Your task to perform on an android device: Open privacy settings Image 0: 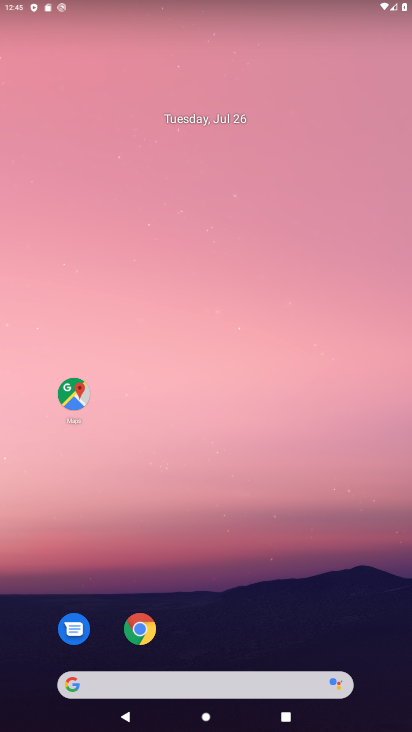
Step 0: drag from (374, 714) to (278, 211)
Your task to perform on an android device: Open privacy settings Image 1: 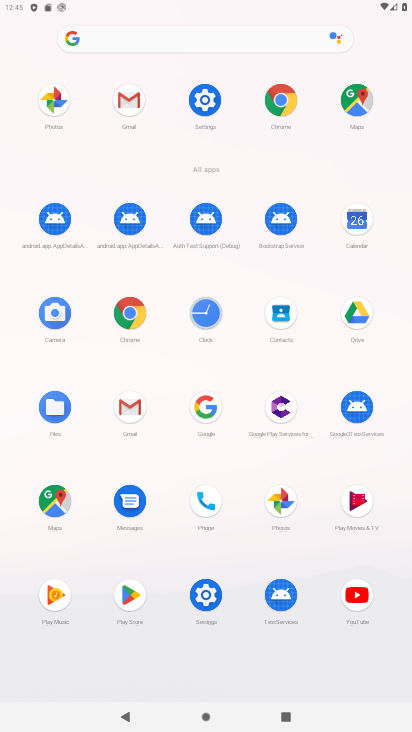
Step 1: click (208, 588)
Your task to perform on an android device: Open privacy settings Image 2: 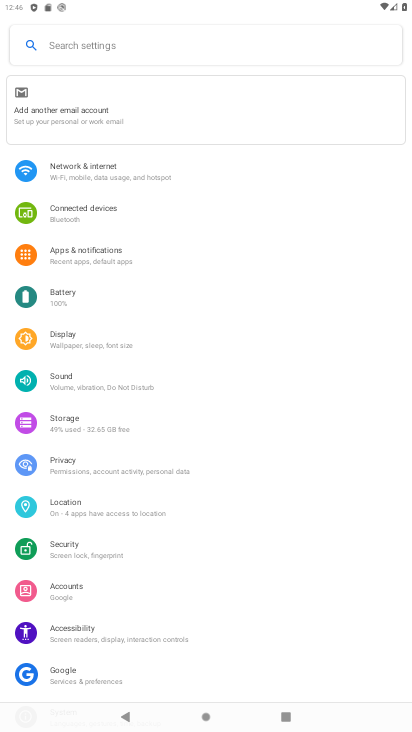
Step 2: click (69, 468)
Your task to perform on an android device: Open privacy settings Image 3: 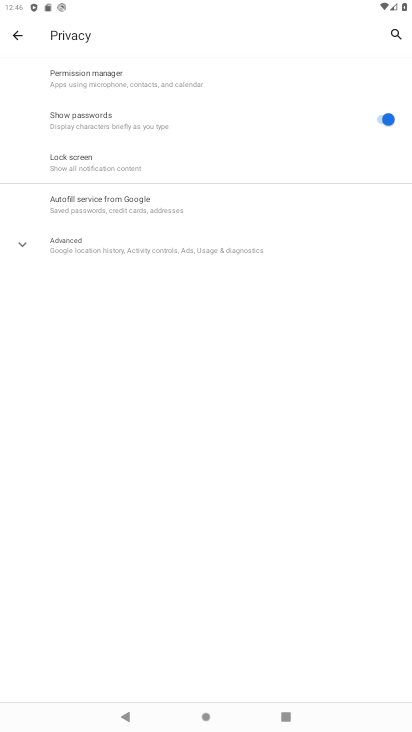
Step 3: click (26, 240)
Your task to perform on an android device: Open privacy settings Image 4: 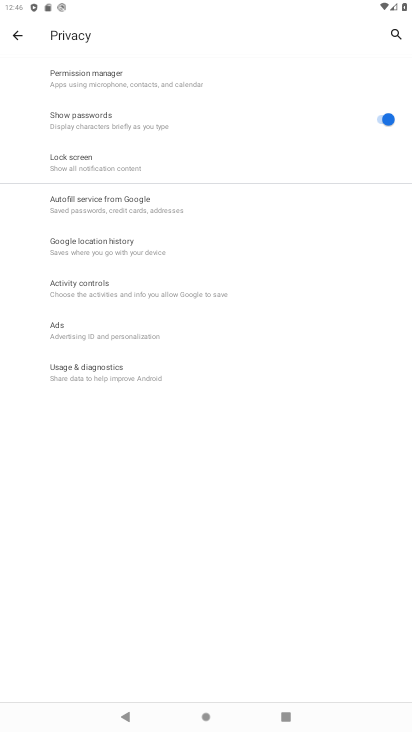
Step 4: task complete